Your task to perform on an android device: turn off priority inbox in the gmail app Image 0: 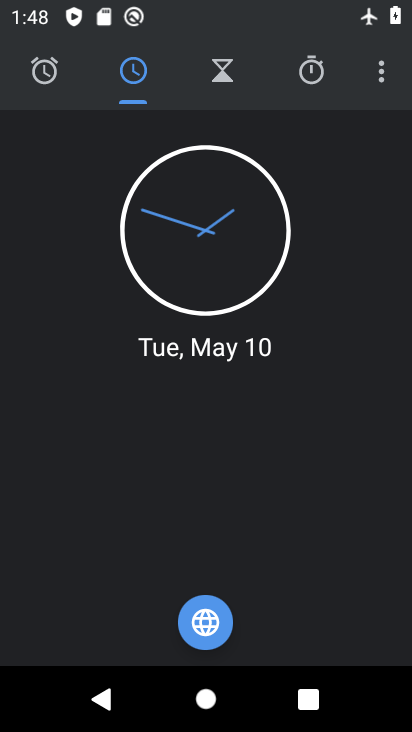
Step 0: press home button
Your task to perform on an android device: turn off priority inbox in the gmail app Image 1: 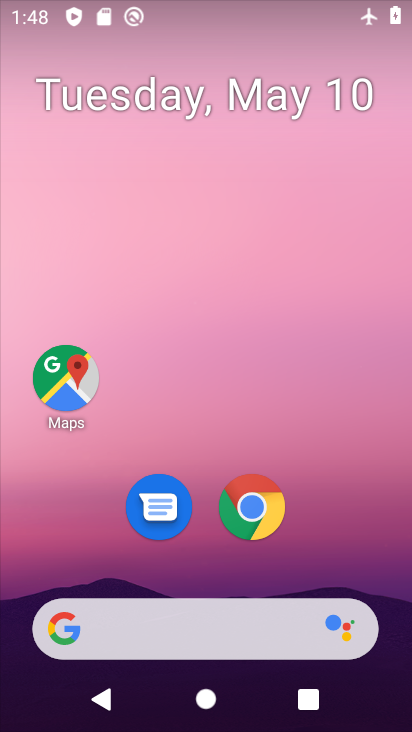
Step 1: drag from (317, 540) to (204, 106)
Your task to perform on an android device: turn off priority inbox in the gmail app Image 2: 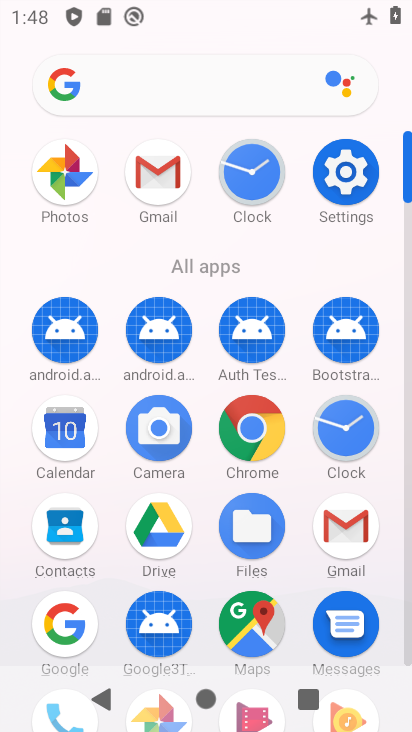
Step 2: click (341, 533)
Your task to perform on an android device: turn off priority inbox in the gmail app Image 3: 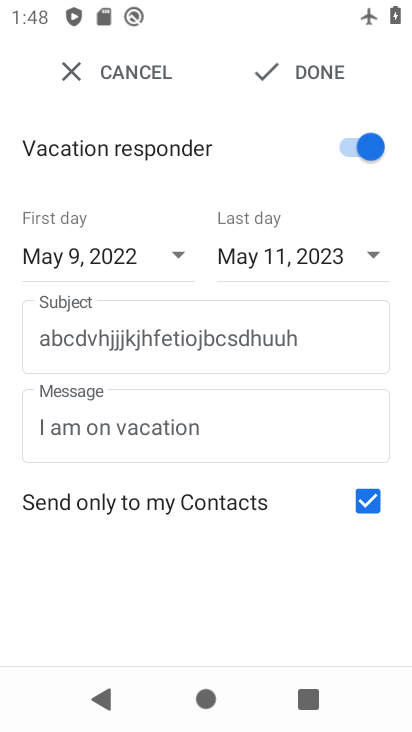
Step 3: press back button
Your task to perform on an android device: turn off priority inbox in the gmail app Image 4: 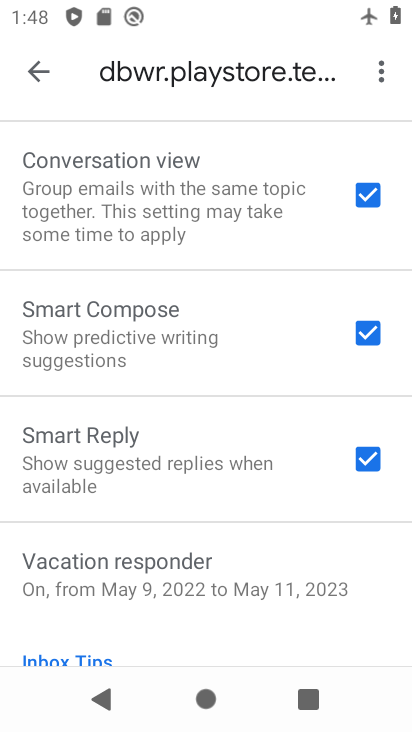
Step 4: drag from (201, 206) to (182, 677)
Your task to perform on an android device: turn off priority inbox in the gmail app Image 5: 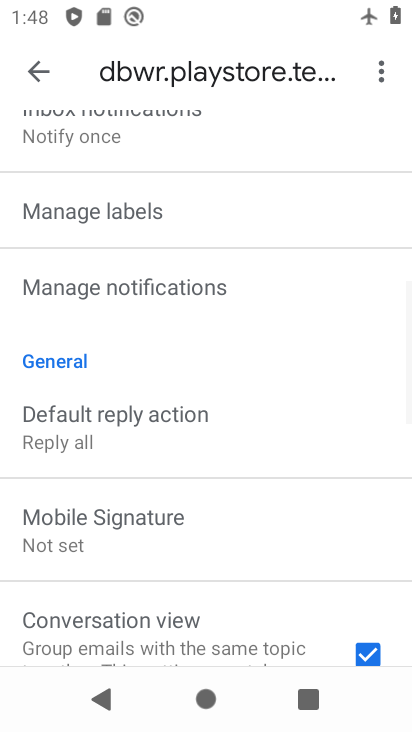
Step 5: drag from (183, 249) to (172, 660)
Your task to perform on an android device: turn off priority inbox in the gmail app Image 6: 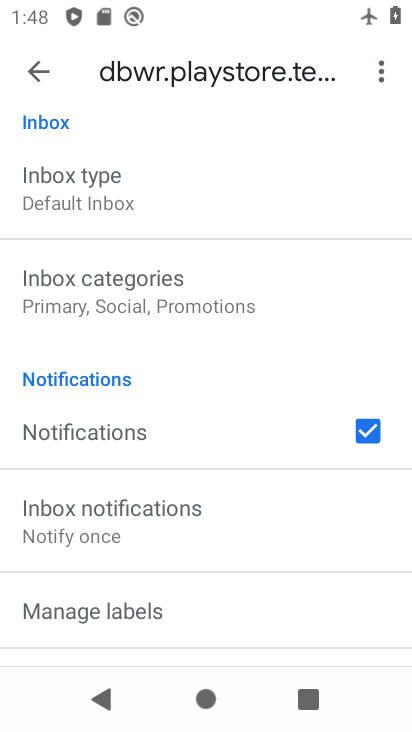
Step 6: click (109, 200)
Your task to perform on an android device: turn off priority inbox in the gmail app Image 7: 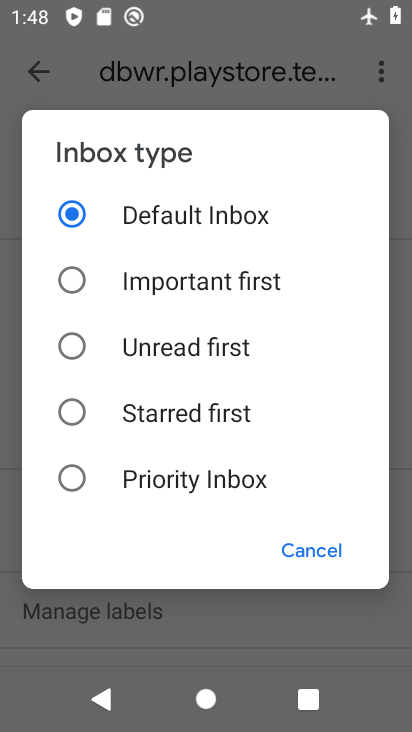
Step 7: task complete